Your task to perform on an android device: turn off airplane mode Image 0: 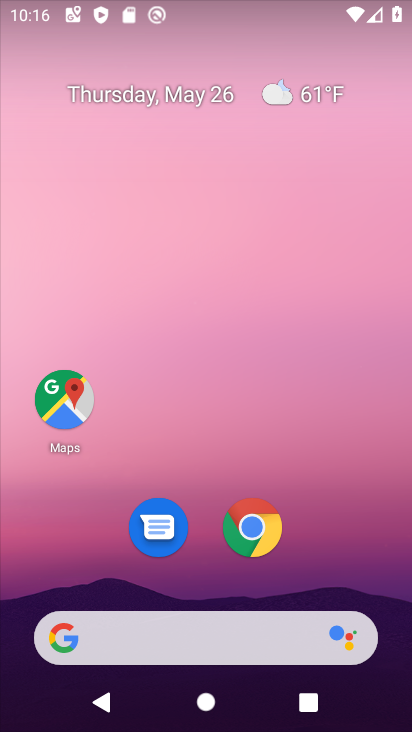
Step 0: drag from (343, 1) to (316, 368)
Your task to perform on an android device: turn off airplane mode Image 1: 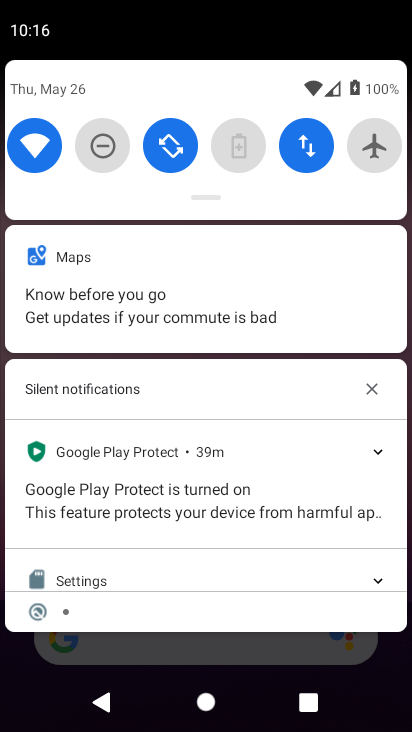
Step 1: task complete